Your task to perform on an android device: What's the weather? Image 0: 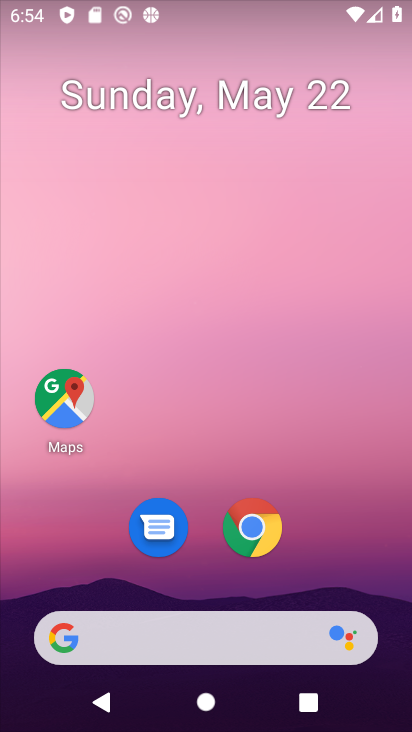
Step 0: drag from (367, 565) to (315, 37)
Your task to perform on an android device: What's the weather? Image 1: 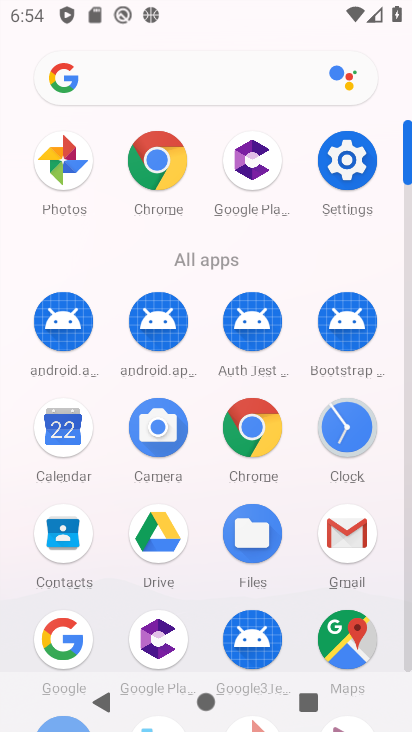
Step 1: drag from (392, 540) to (389, 283)
Your task to perform on an android device: What's the weather? Image 2: 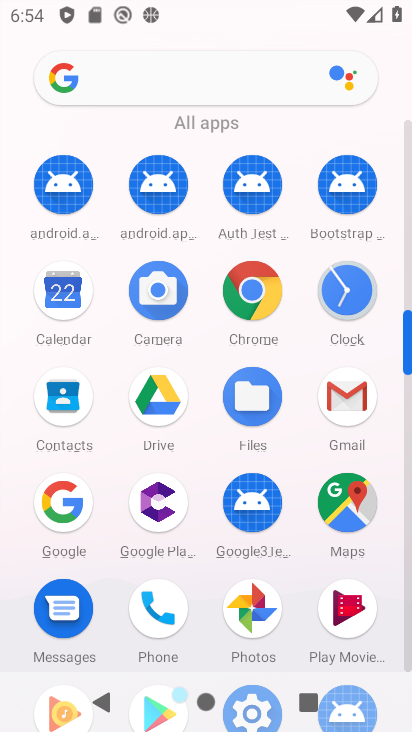
Step 2: drag from (374, 577) to (398, 260)
Your task to perform on an android device: What's the weather? Image 3: 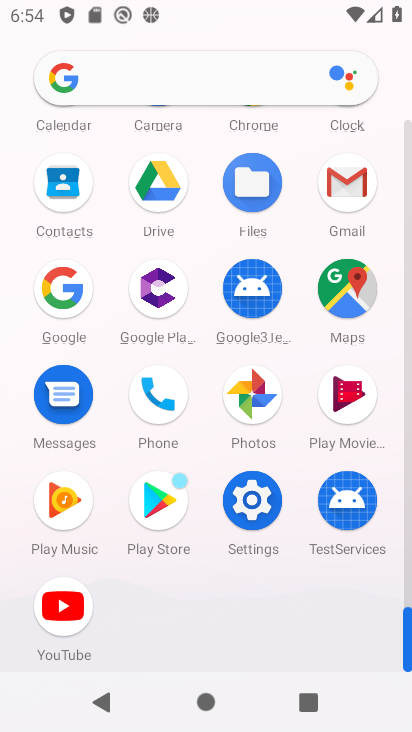
Step 3: drag from (400, 388) to (403, 699)
Your task to perform on an android device: What's the weather? Image 4: 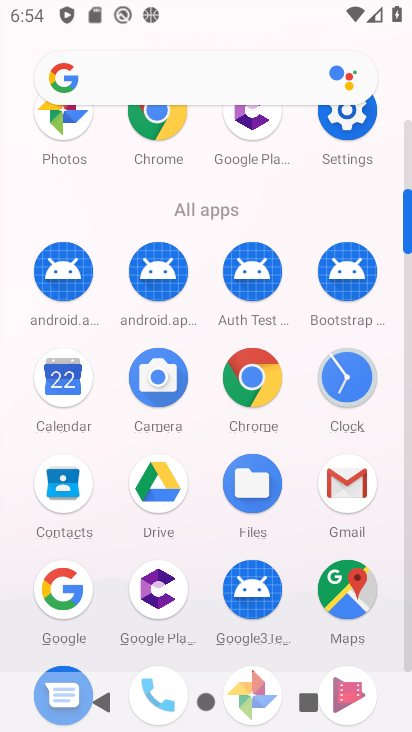
Step 4: drag from (396, 316) to (389, 728)
Your task to perform on an android device: What's the weather? Image 5: 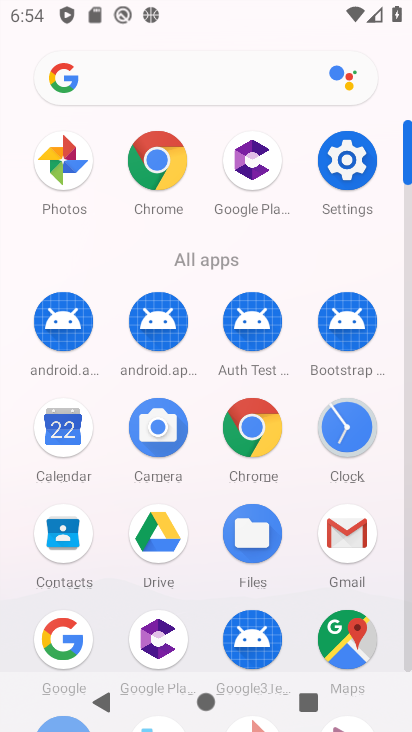
Step 5: click (72, 88)
Your task to perform on an android device: What's the weather? Image 6: 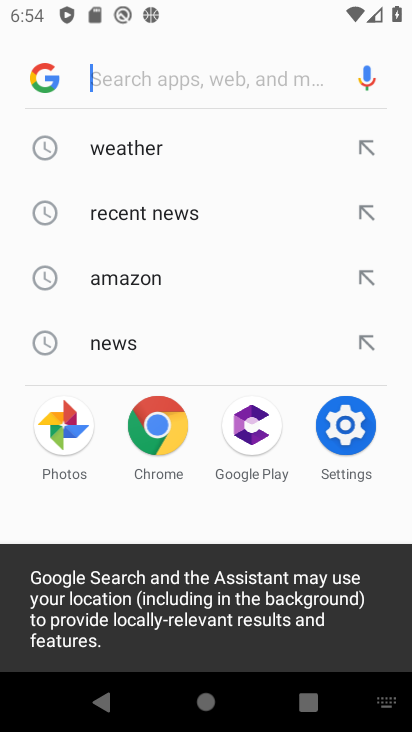
Step 6: click (46, 84)
Your task to perform on an android device: What's the weather? Image 7: 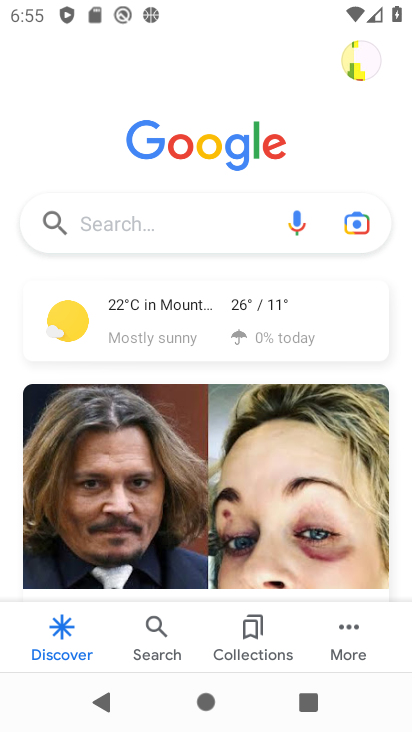
Step 7: click (223, 328)
Your task to perform on an android device: What's the weather? Image 8: 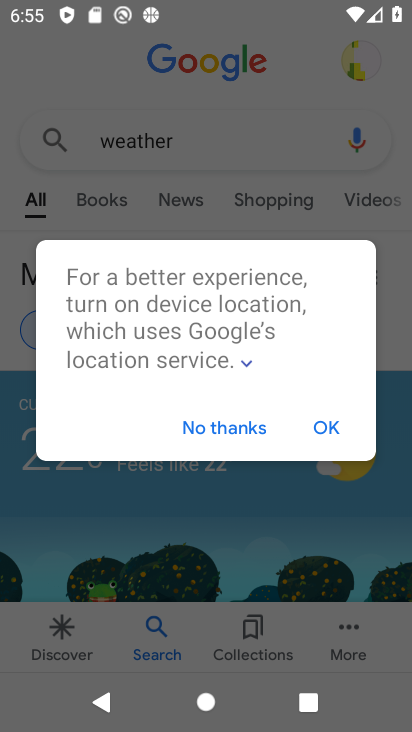
Step 8: click (233, 450)
Your task to perform on an android device: What's the weather? Image 9: 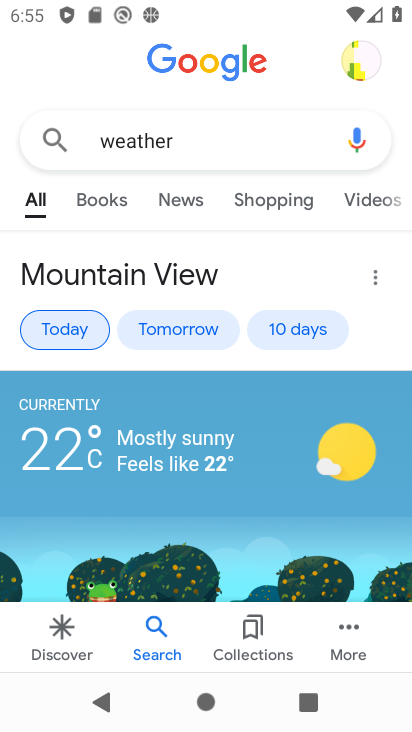
Step 9: task complete